Your task to perform on an android device: Search for pizza restaurants on Maps Image 0: 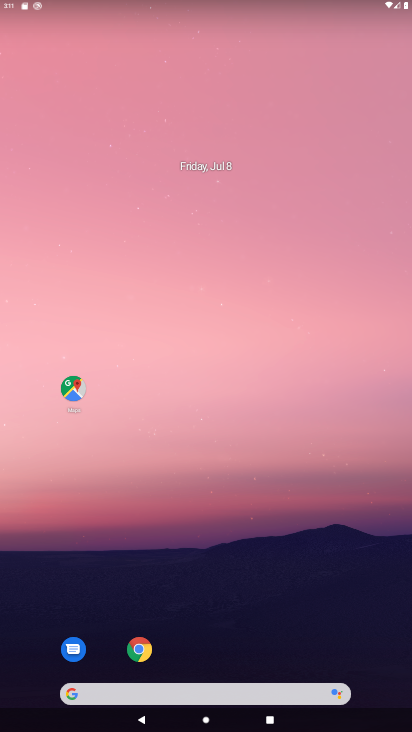
Step 0: click (66, 396)
Your task to perform on an android device: Search for pizza restaurants on Maps Image 1: 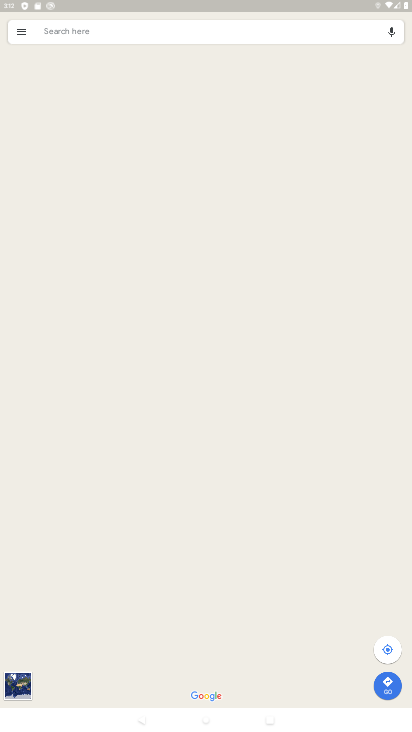
Step 1: click (158, 38)
Your task to perform on an android device: Search for pizza restaurants on Maps Image 2: 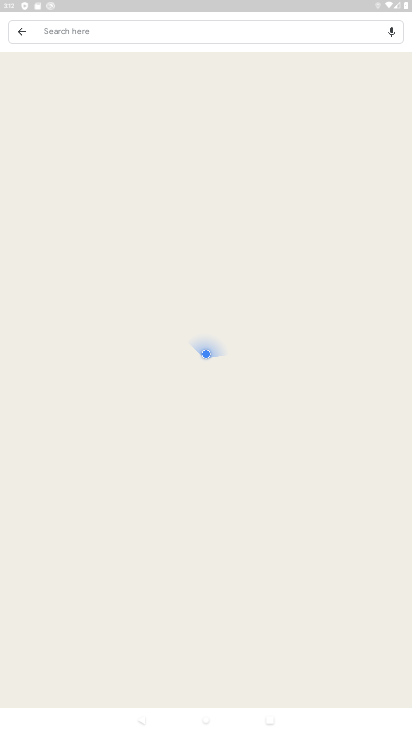
Step 2: click (93, 32)
Your task to perform on an android device: Search for pizza restaurants on Maps Image 3: 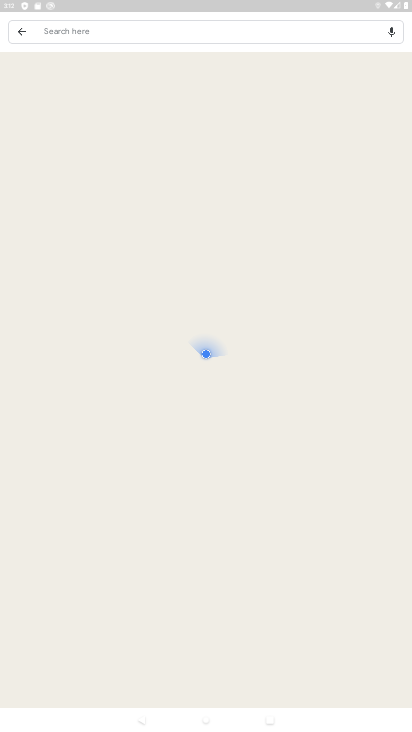
Step 3: click (62, 31)
Your task to perform on an android device: Search for pizza restaurants on Maps Image 4: 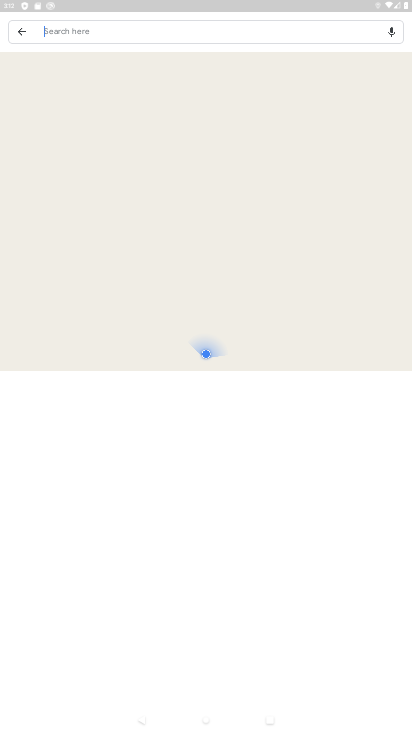
Step 4: click (62, 31)
Your task to perform on an android device: Search for pizza restaurants on Maps Image 5: 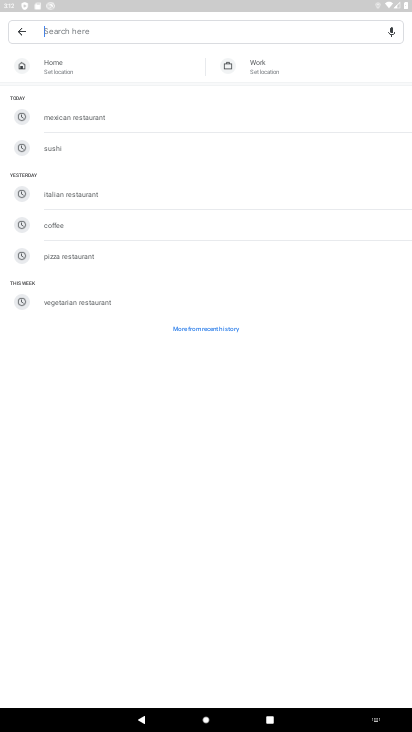
Step 5: type "pizza restaurants"
Your task to perform on an android device: Search for pizza restaurants on Maps Image 6: 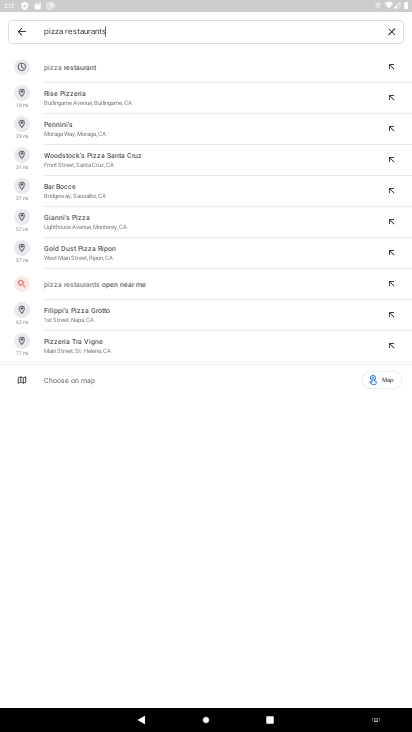
Step 6: click (87, 68)
Your task to perform on an android device: Search for pizza restaurants on Maps Image 7: 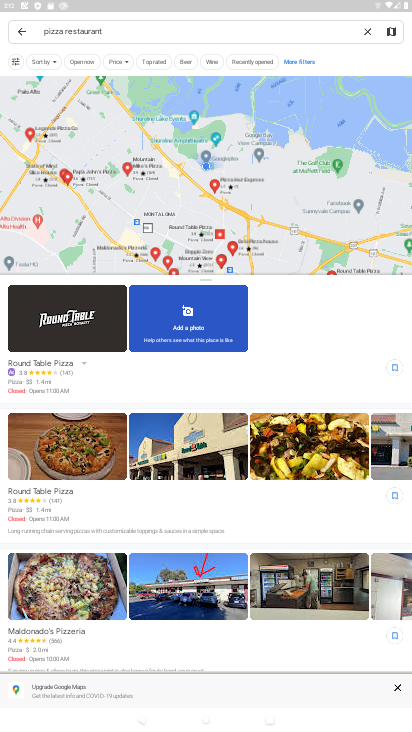
Step 7: task complete